Your task to perform on an android device: turn on notifications settings in the gmail app Image 0: 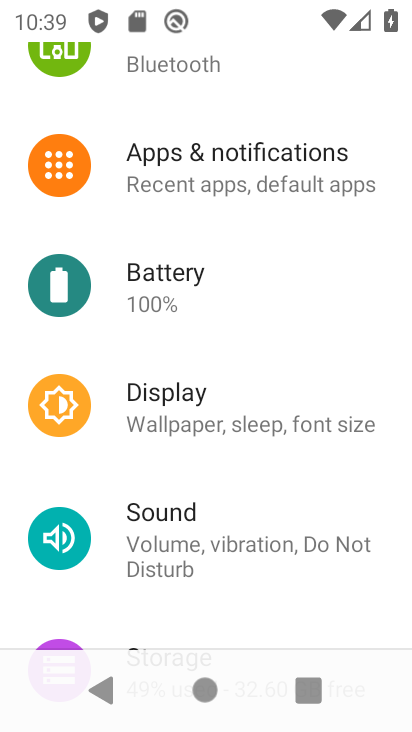
Step 0: press home button
Your task to perform on an android device: turn on notifications settings in the gmail app Image 1: 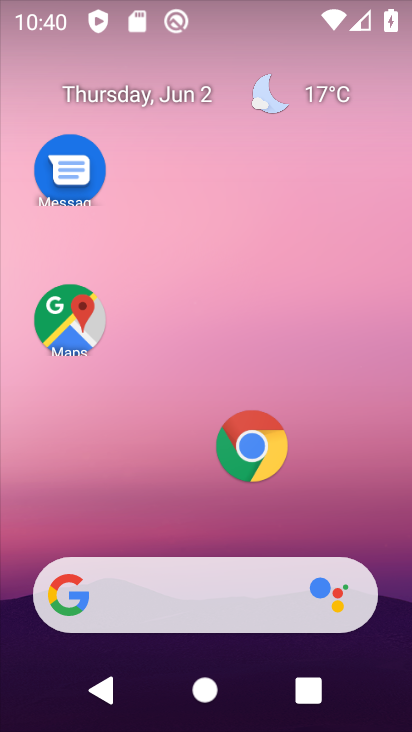
Step 1: drag from (366, 506) to (290, 19)
Your task to perform on an android device: turn on notifications settings in the gmail app Image 2: 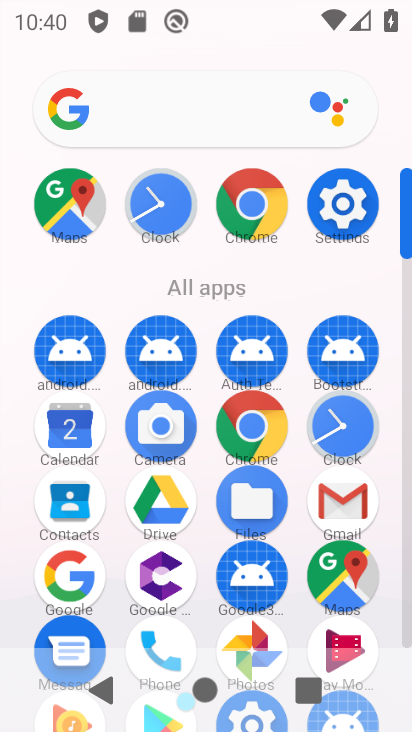
Step 2: click (340, 481)
Your task to perform on an android device: turn on notifications settings in the gmail app Image 3: 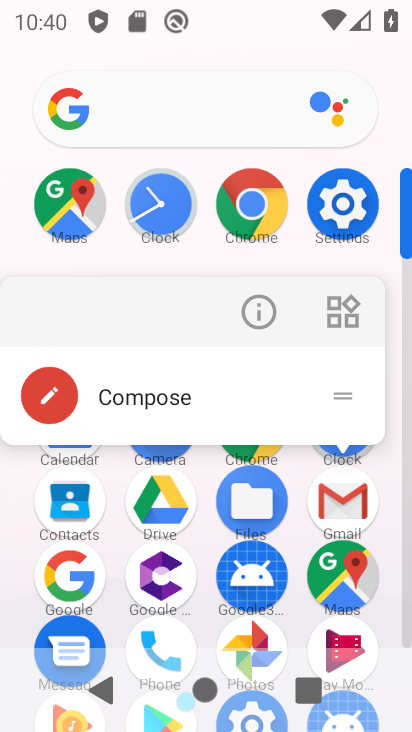
Step 3: click (276, 327)
Your task to perform on an android device: turn on notifications settings in the gmail app Image 4: 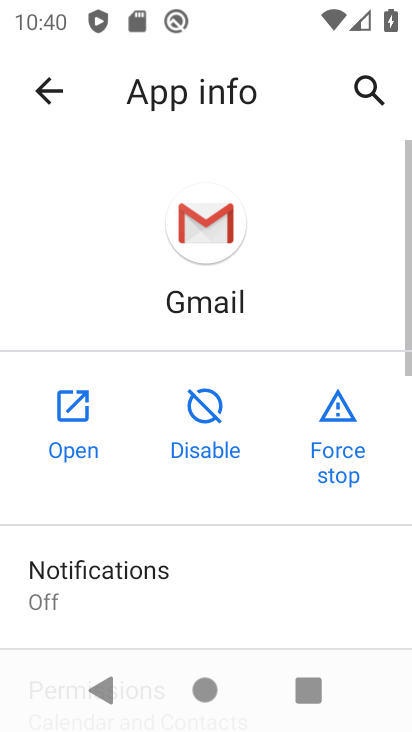
Step 4: click (142, 571)
Your task to perform on an android device: turn on notifications settings in the gmail app Image 5: 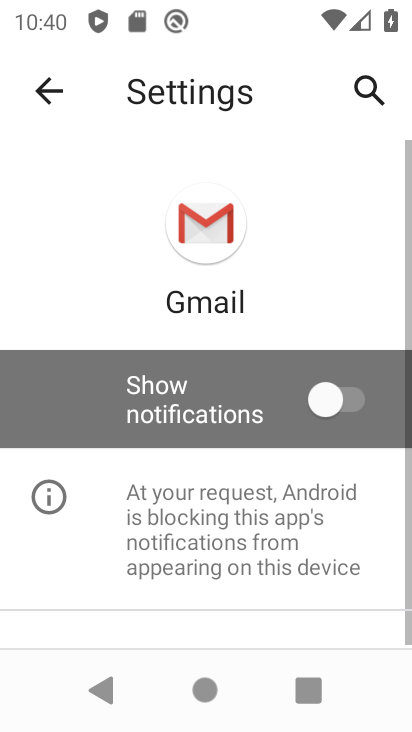
Step 5: click (198, 374)
Your task to perform on an android device: turn on notifications settings in the gmail app Image 6: 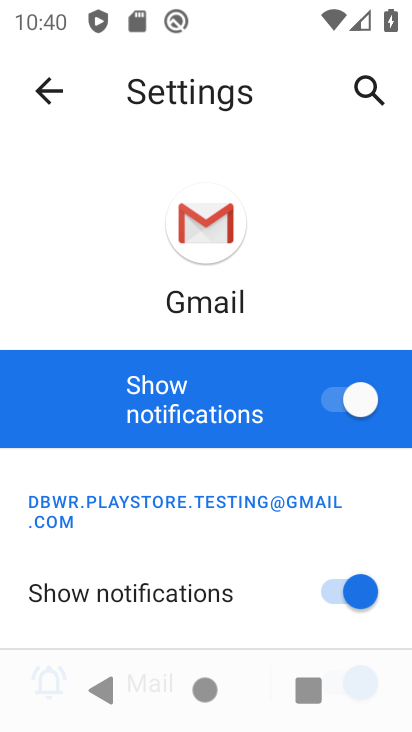
Step 6: task complete